Your task to perform on an android device: Turn on the flashlight Image 0: 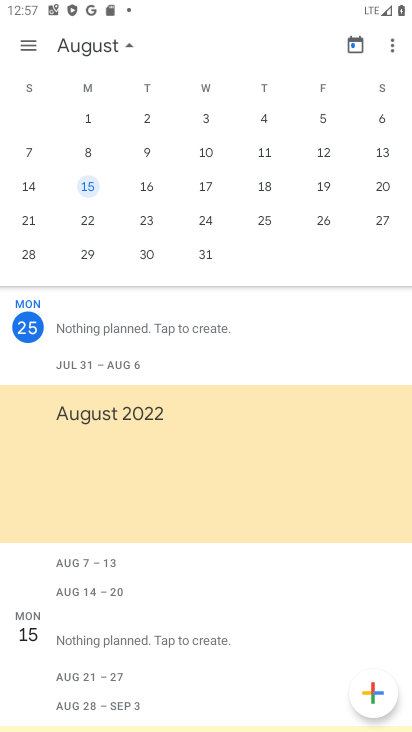
Step 0: press home button
Your task to perform on an android device: Turn on the flashlight Image 1: 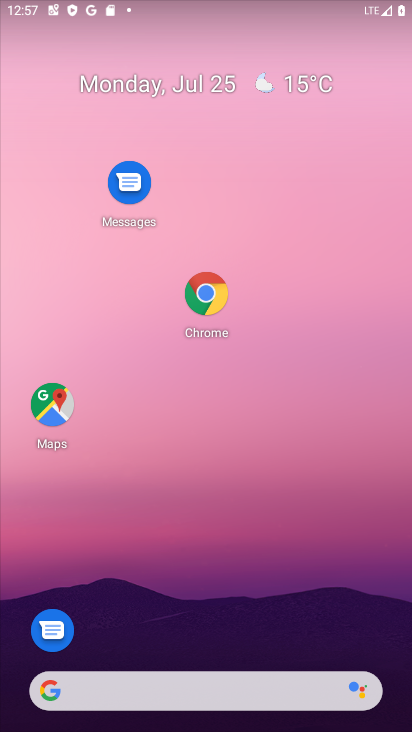
Step 1: task complete